Your task to perform on an android device: Open the web browser Image 0: 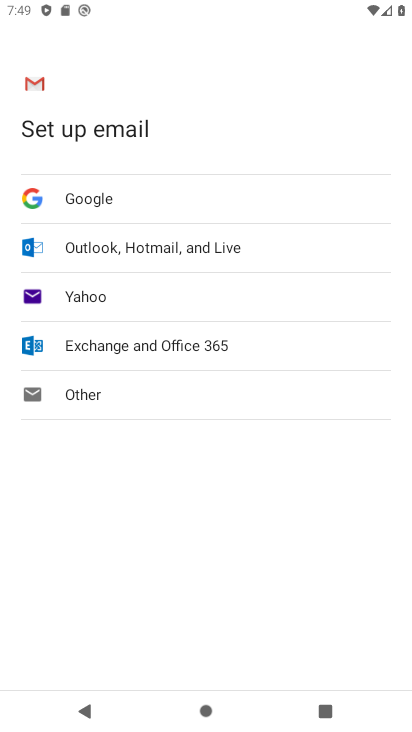
Step 0: press home button
Your task to perform on an android device: Open the web browser Image 1: 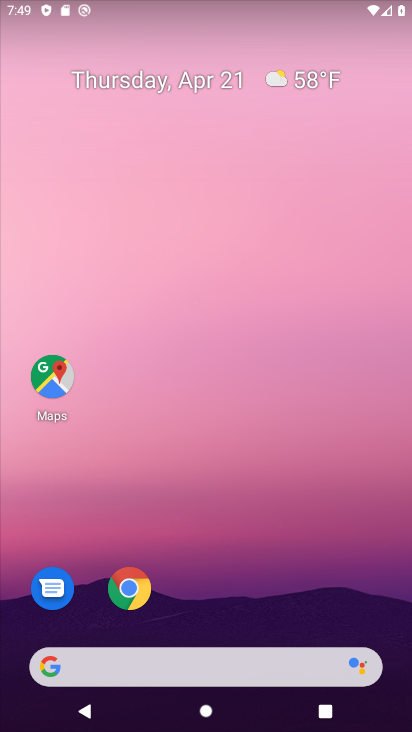
Step 1: click (135, 580)
Your task to perform on an android device: Open the web browser Image 2: 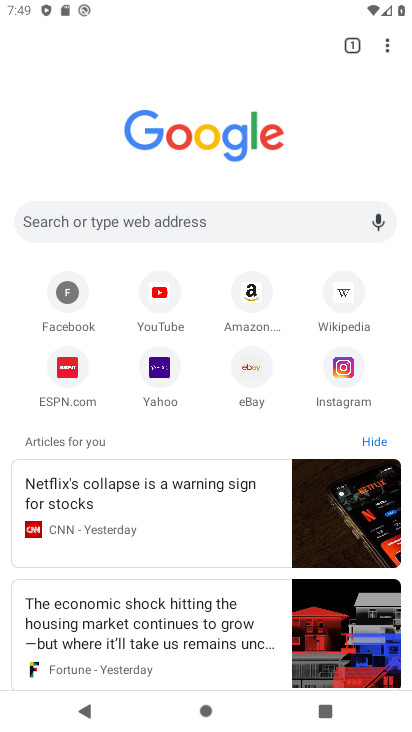
Step 2: task complete